Your task to perform on an android device: Check the weather Image 0: 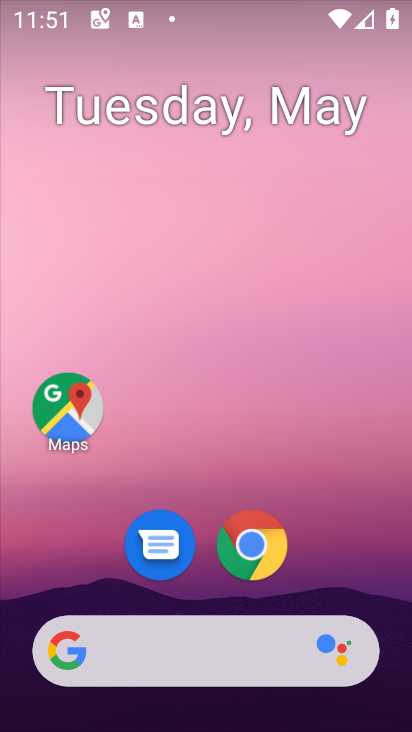
Step 0: click (254, 549)
Your task to perform on an android device: Check the weather Image 1: 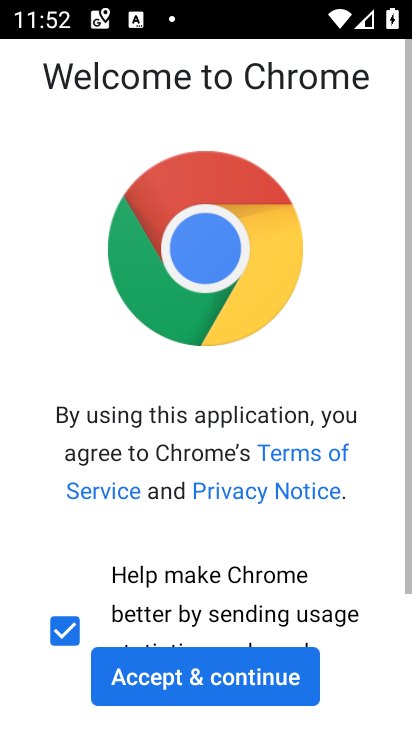
Step 1: click (209, 676)
Your task to perform on an android device: Check the weather Image 2: 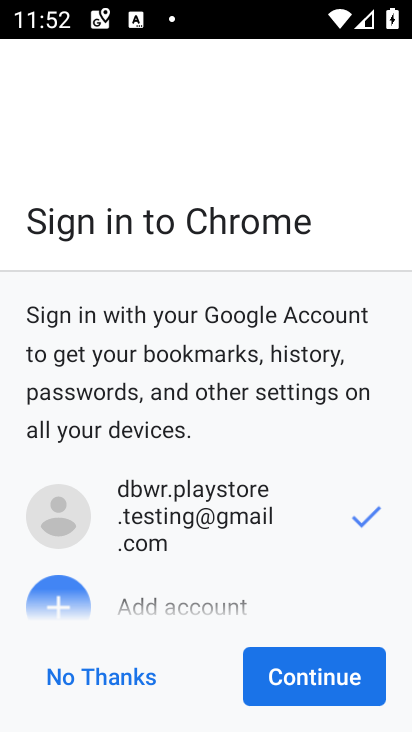
Step 2: click (312, 664)
Your task to perform on an android device: Check the weather Image 3: 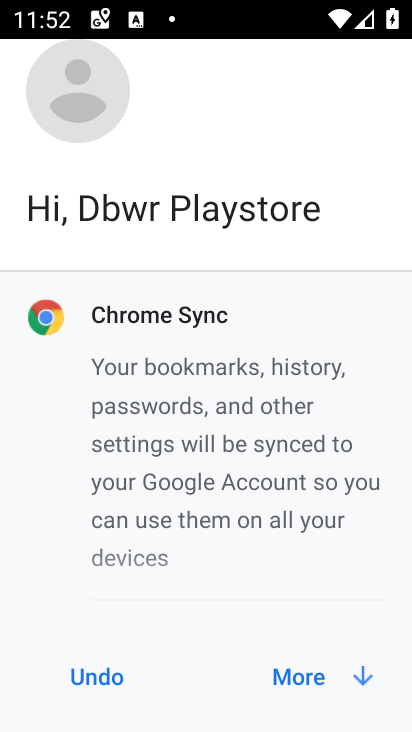
Step 3: click (300, 676)
Your task to perform on an android device: Check the weather Image 4: 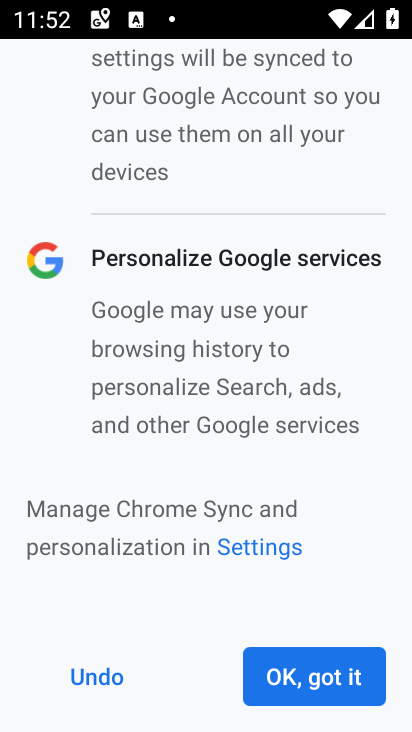
Step 4: click (299, 676)
Your task to perform on an android device: Check the weather Image 5: 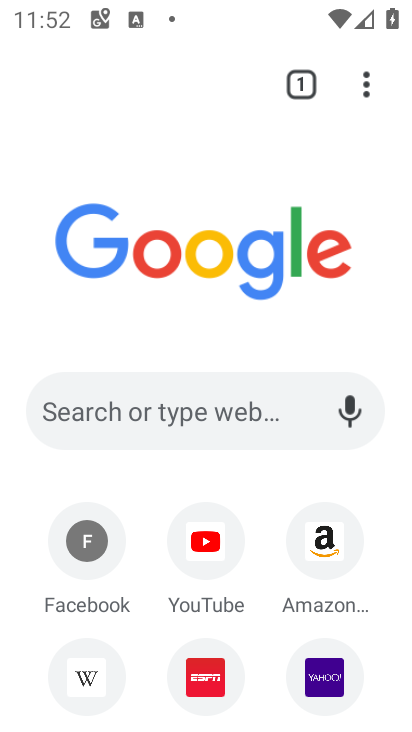
Step 5: click (131, 396)
Your task to perform on an android device: Check the weather Image 6: 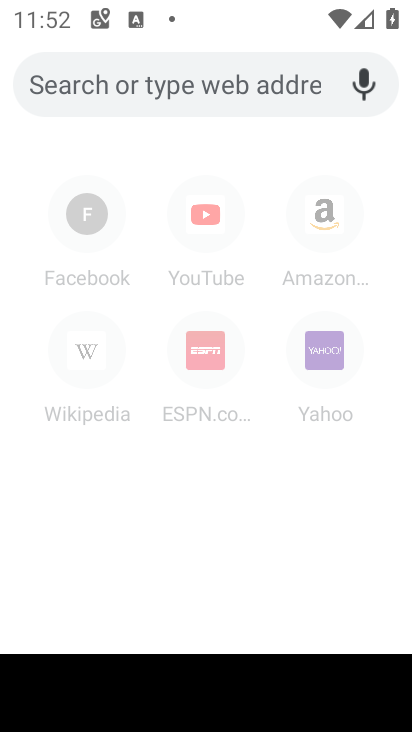
Step 6: type "weather"
Your task to perform on an android device: Check the weather Image 7: 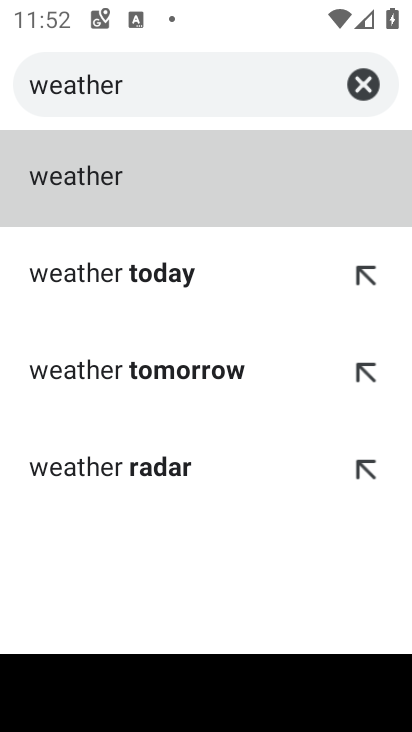
Step 7: click (182, 207)
Your task to perform on an android device: Check the weather Image 8: 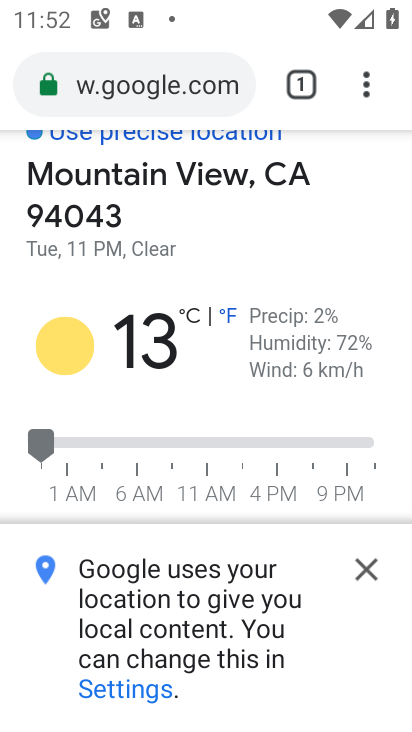
Step 8: task complete